Your task to perform on an android device: see creations saved in the google photos Image 0: 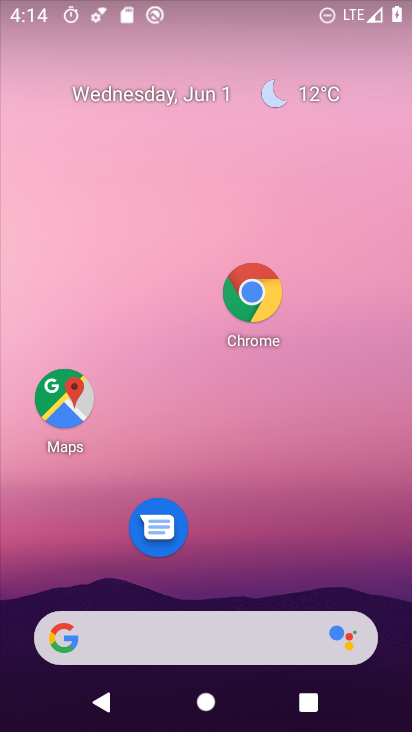
Step 0: drag from (246, 596) to (341, 27)
Your task to perform on an android device: see creations saved in the google photos Image 1: 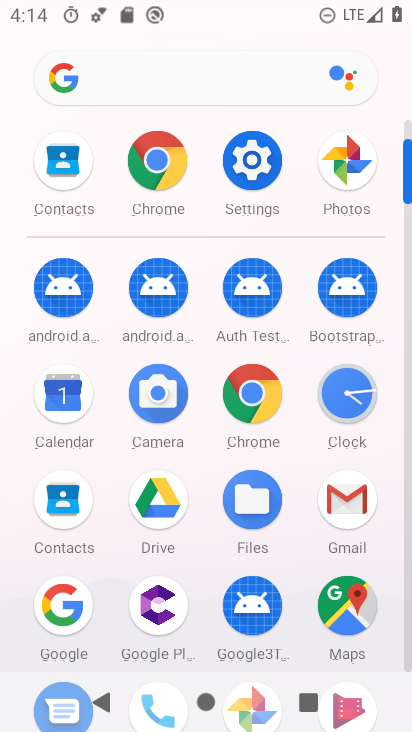
Step 1: drag from (246, 526) to (285, 167)
Your task to perform on an android device: see creations saved in the google photos Image 2: 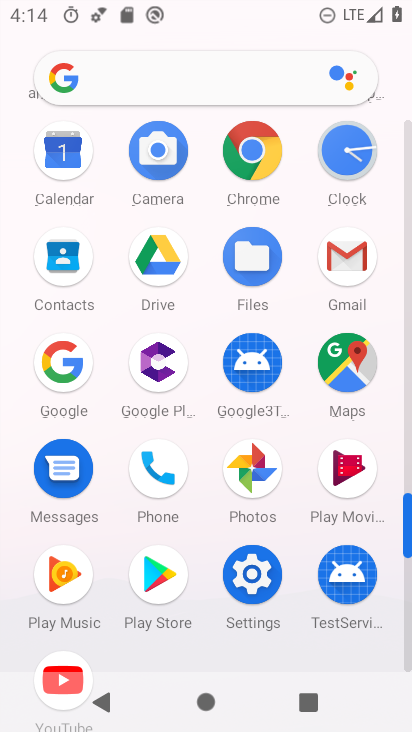
Step 2: click (263, 482)
Your task to perform on an android device: see creations saved in the google photos Image 3: 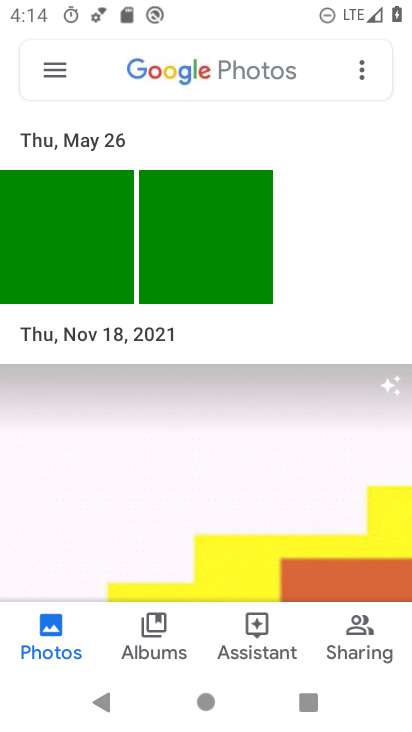
Step 3: click (274, 642)
Your task to perform on an android device: see creations saved in the google photos Image 4: 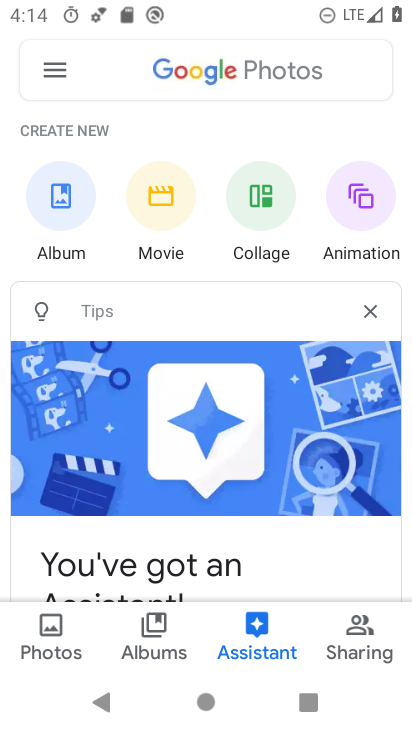
Step 4: task complete